Your task to perform on an android device: refresh tabs in the chrome app Image 0: 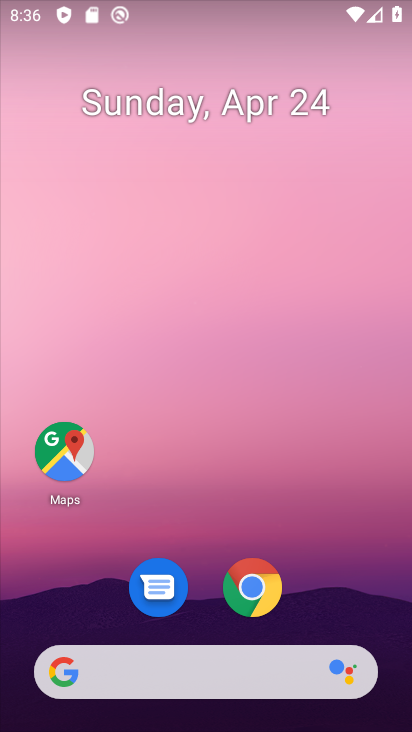
Step 0: click (257, 574)
Your task to perform on an android device: refresh tabs in the chrome app Image 1: 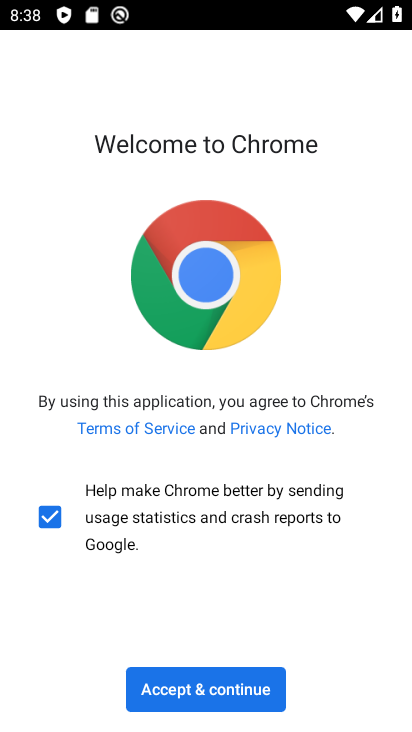
Step 1: click (202, 689)
Your task to perform on an android device: refresh tabs in the chrome app Image 2: 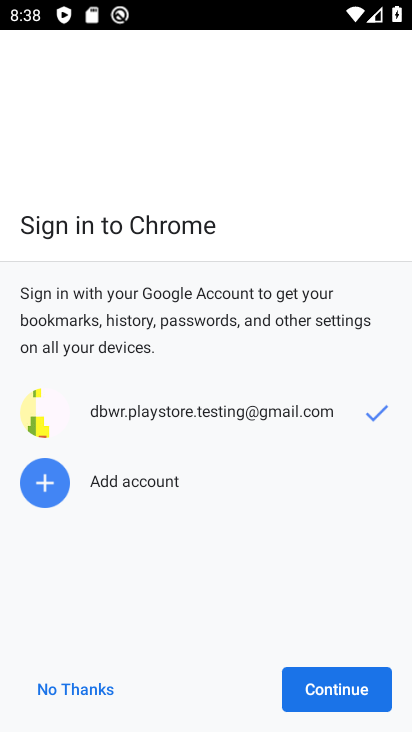
Step 2: click (367, 698)
Your task to perform on an android device: refresh tabs in the chrome app Image 3: 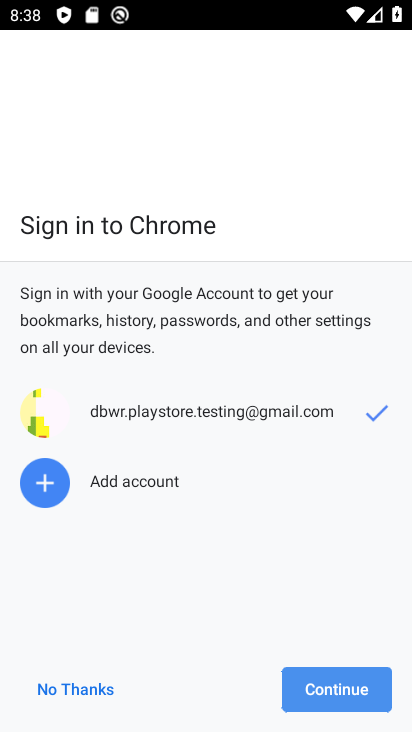
Step 3: click (367, 698)
Your task to perform on an android device: refresh tabs in the chrome app Image 4: 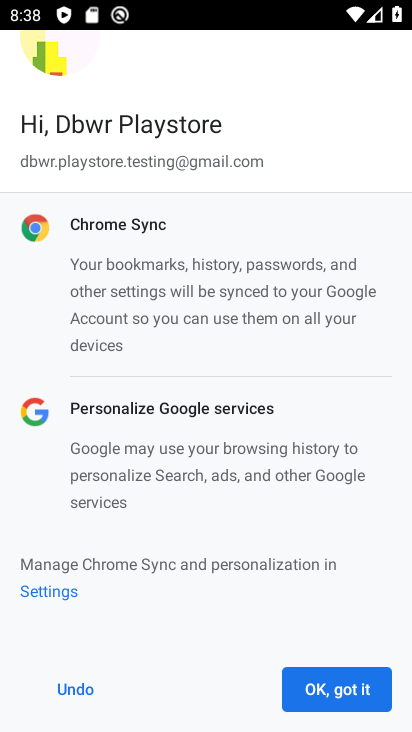
Step 4: click (334, 697)
Your task to perform on an android device: refresh tabs in the chrome app Image 5: 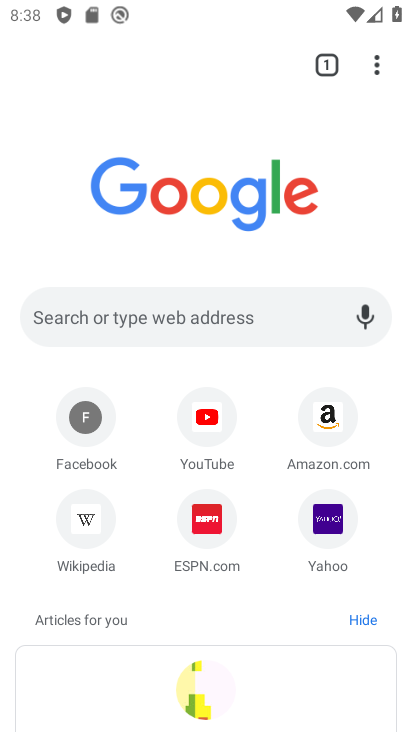
Step 5: click (369, 69)
Your task to perform on an android device: refresh tabs in the chrome app Image 6: 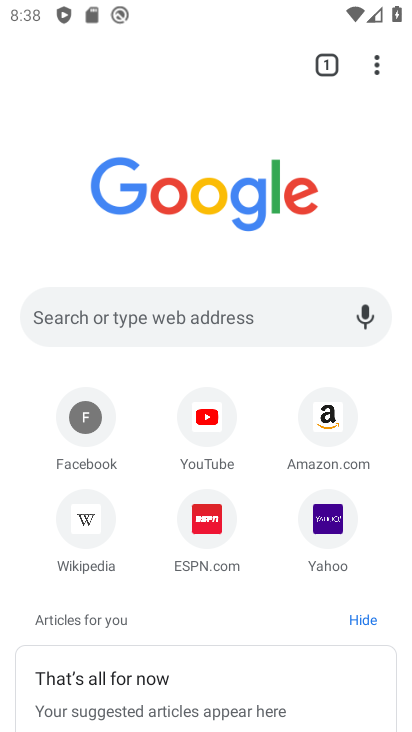
Step 6: task complete